Your task to perform on an android device: Open maps Image 0: 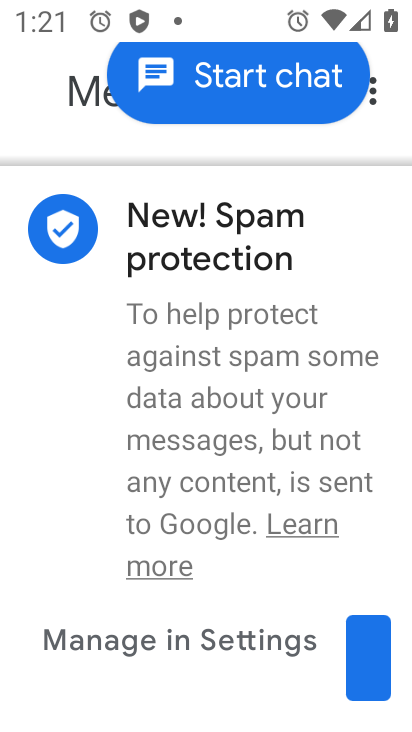
Step 0: press home button
Your task to perform on an android device: Open maps Image 1: 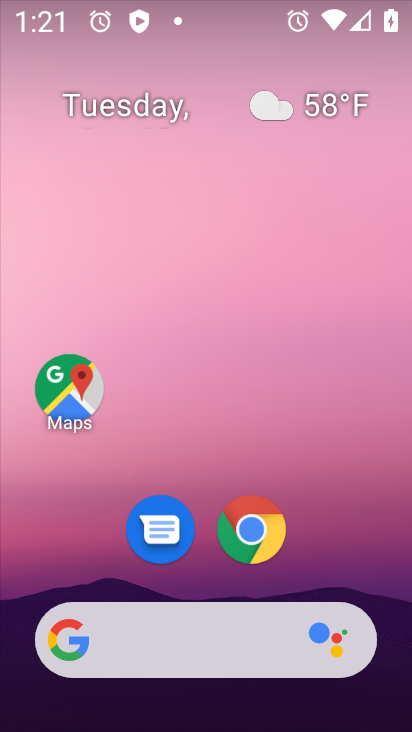
Step 1: drag from (286, 620) to (240, 231)
Your task to perform on an android device: Open maps Image 2: 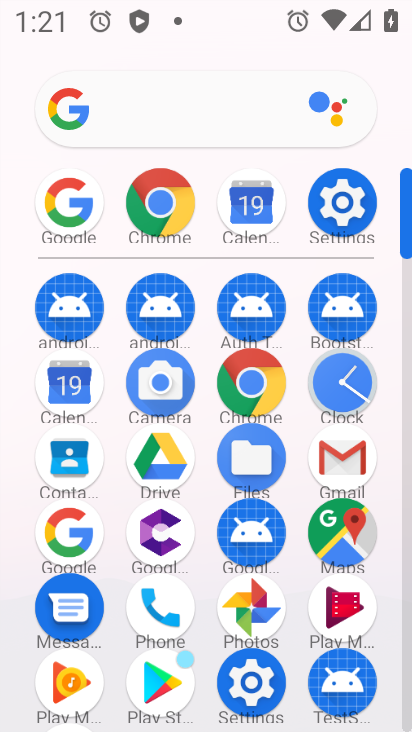
Step 2: click (331, 541)
Your task to perform on an android device: Open maps Image 3: 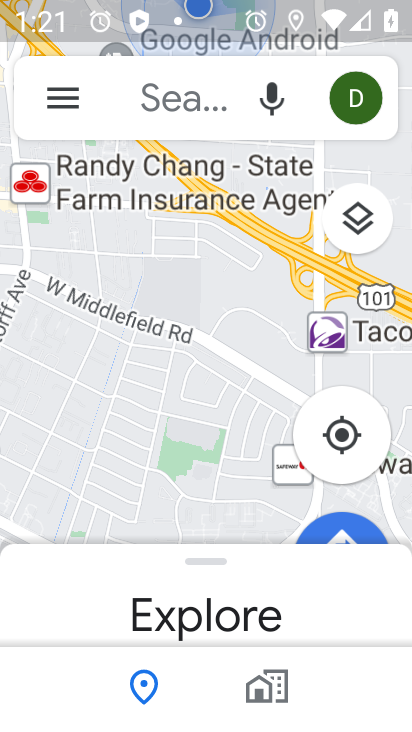
Step 3: task complete